Your task to perform on an android device: open app "Viber Messenger" (install if not already installed) and go to login screen Image 0: 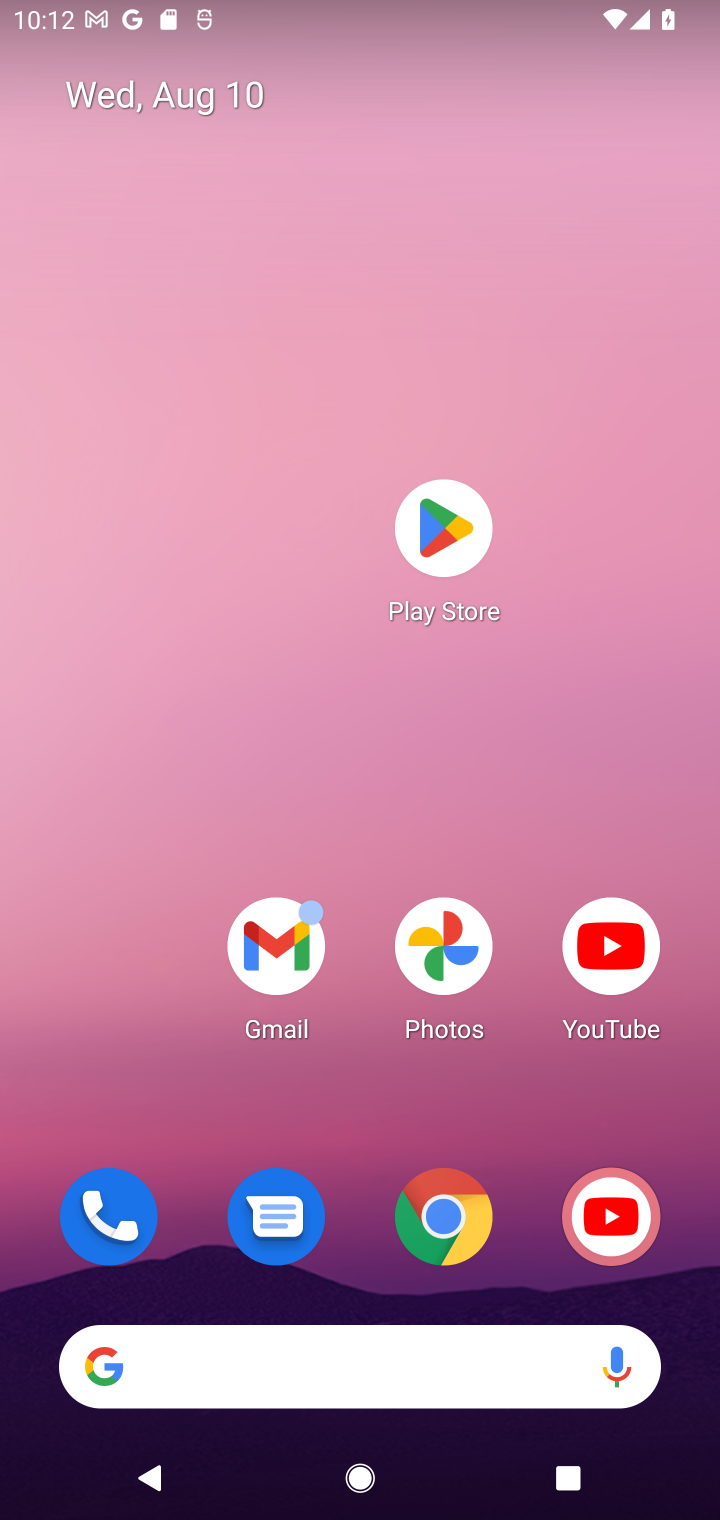
Step 0: click (436, 515)
Your task to perform on an android device: open app "Viber Messenger" (install if not already installed) and go to login screen Image 1: 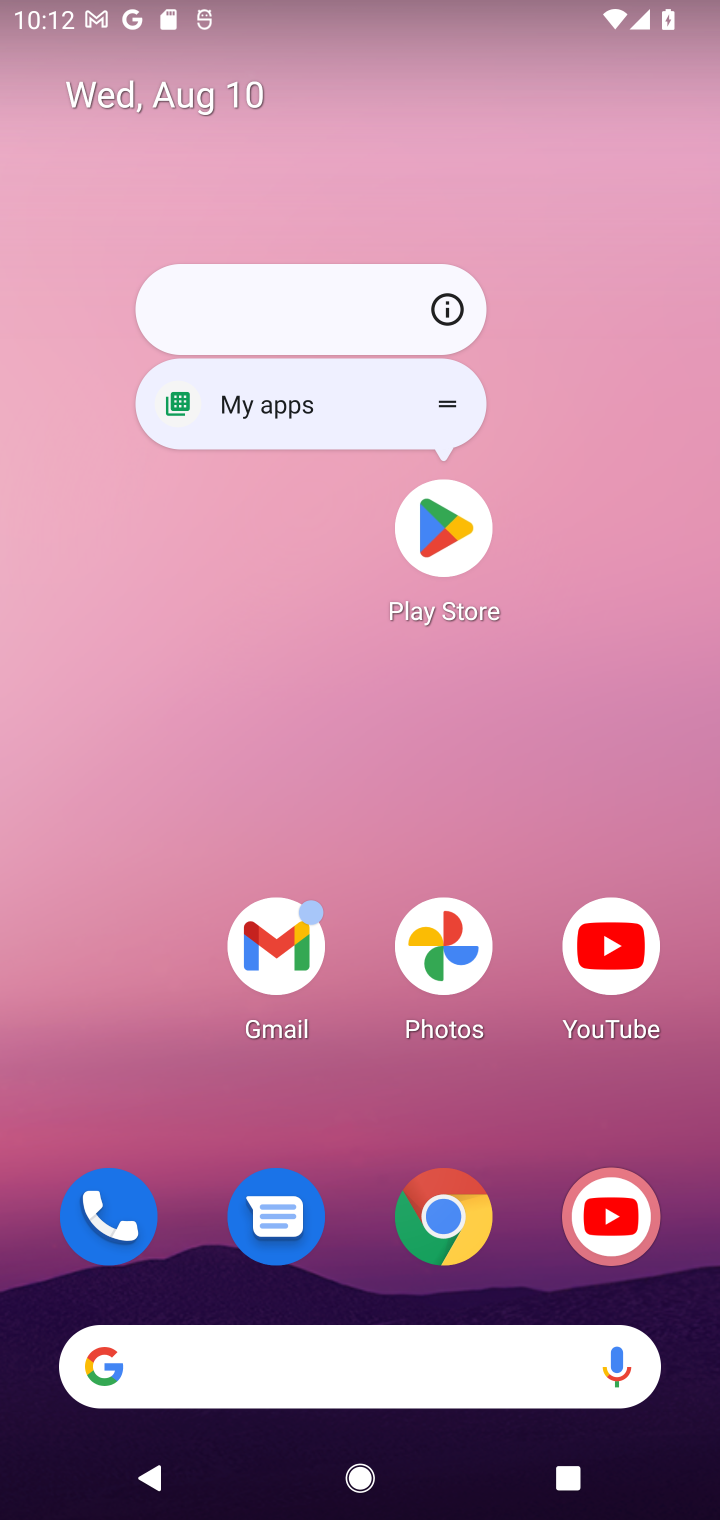
Step 1: click (436, 519)
Your task to perform on an android device: open app "Viber Messenger" (install if not already installed) and go to login screen Image 2: 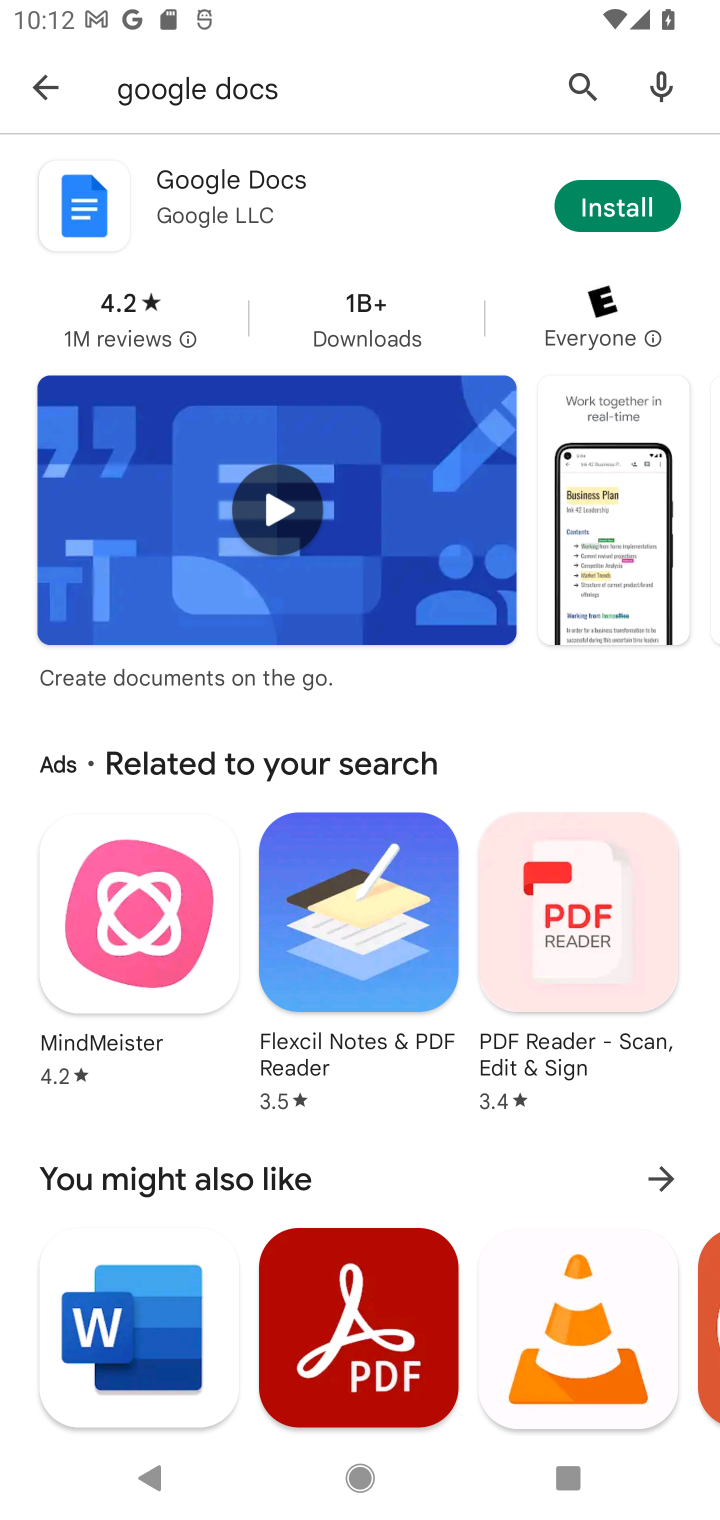
Step 2: click (576, 83)
Your task to perform on an android device: open app "Viber Messenger" (install if not already installed) and go to login screen Image 3: 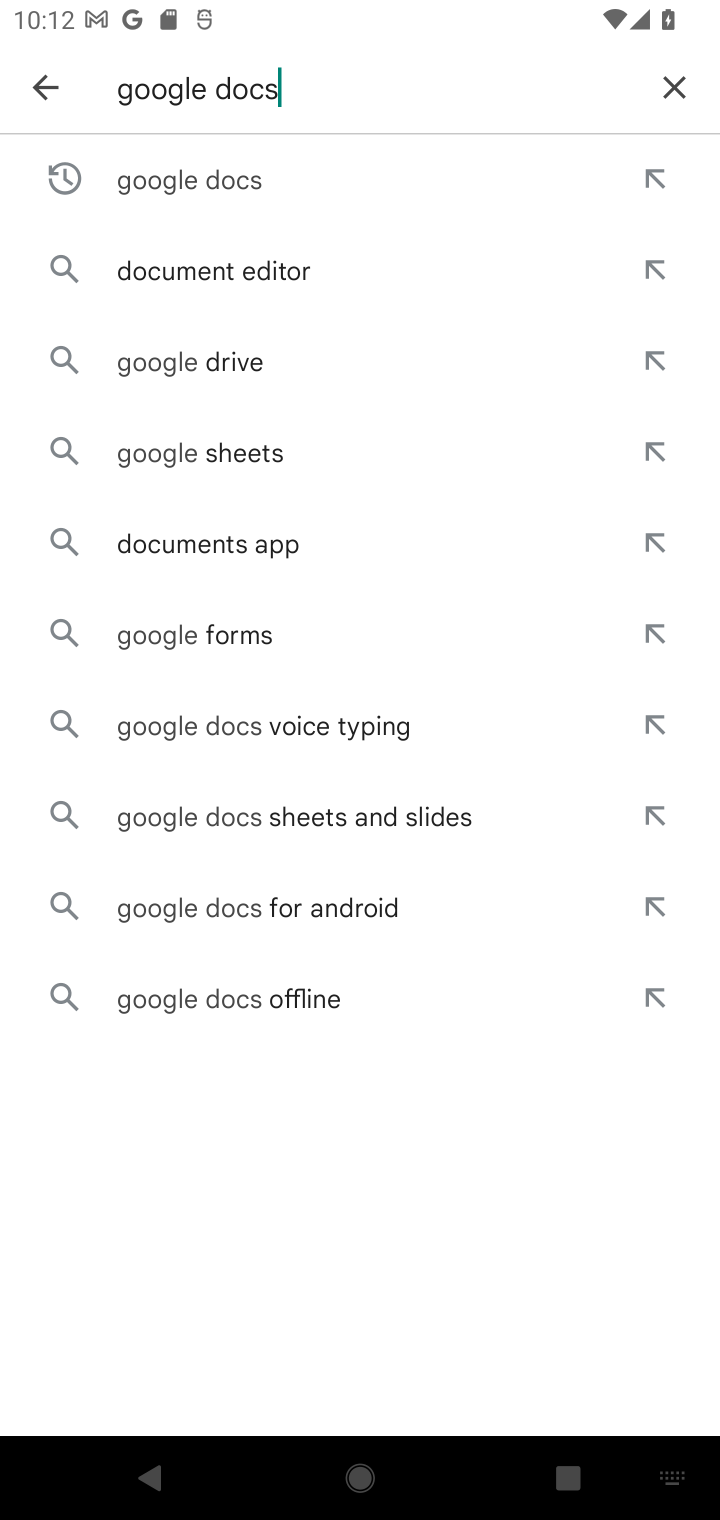
Step 3: click (689, 79)
Your task to perform on an android device: open app "Viber Messenger" (install if not already installed) and go to login screen Image 4: 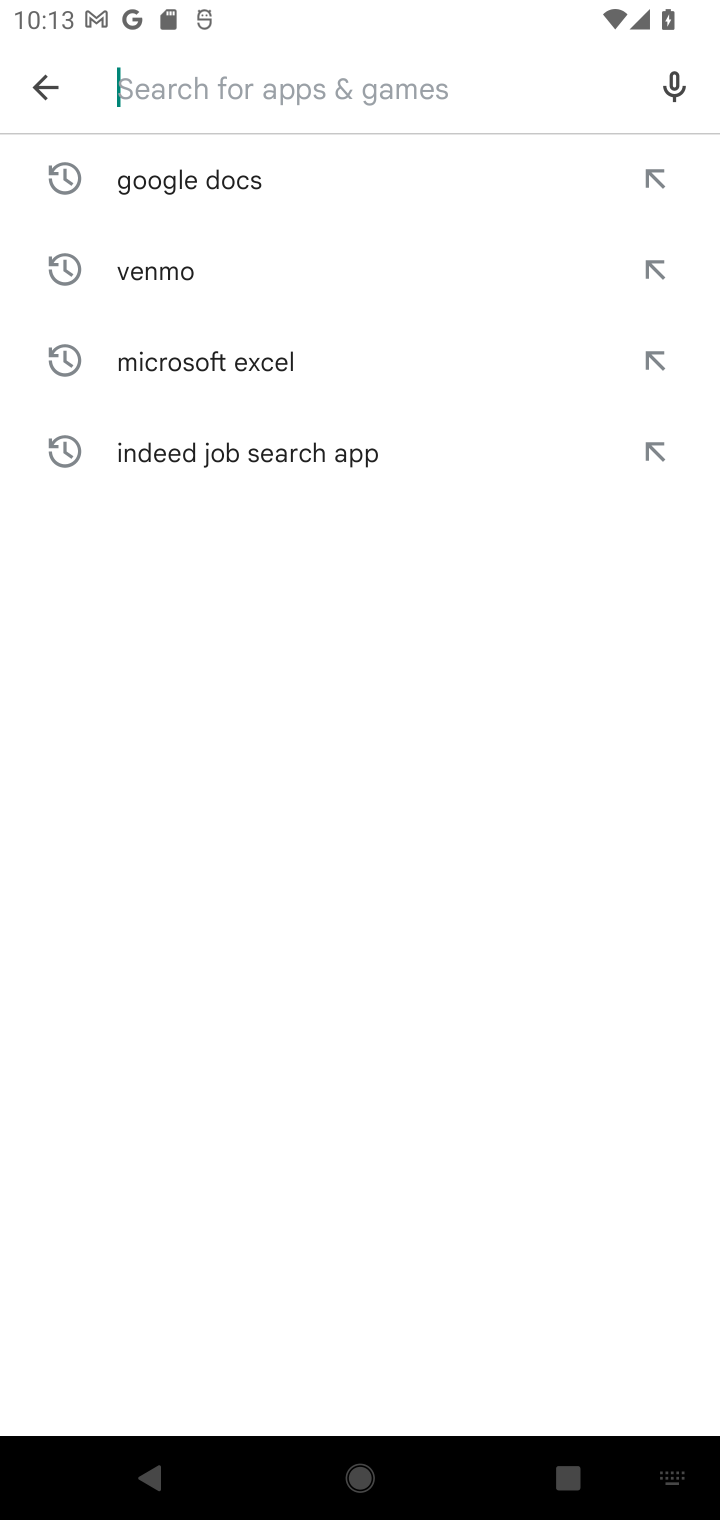
Step 4: type "Viber Messenger"
Your task to perform on an android device: open app "Viber Messenger" (install if not already installed) and go to login screen Image 5: 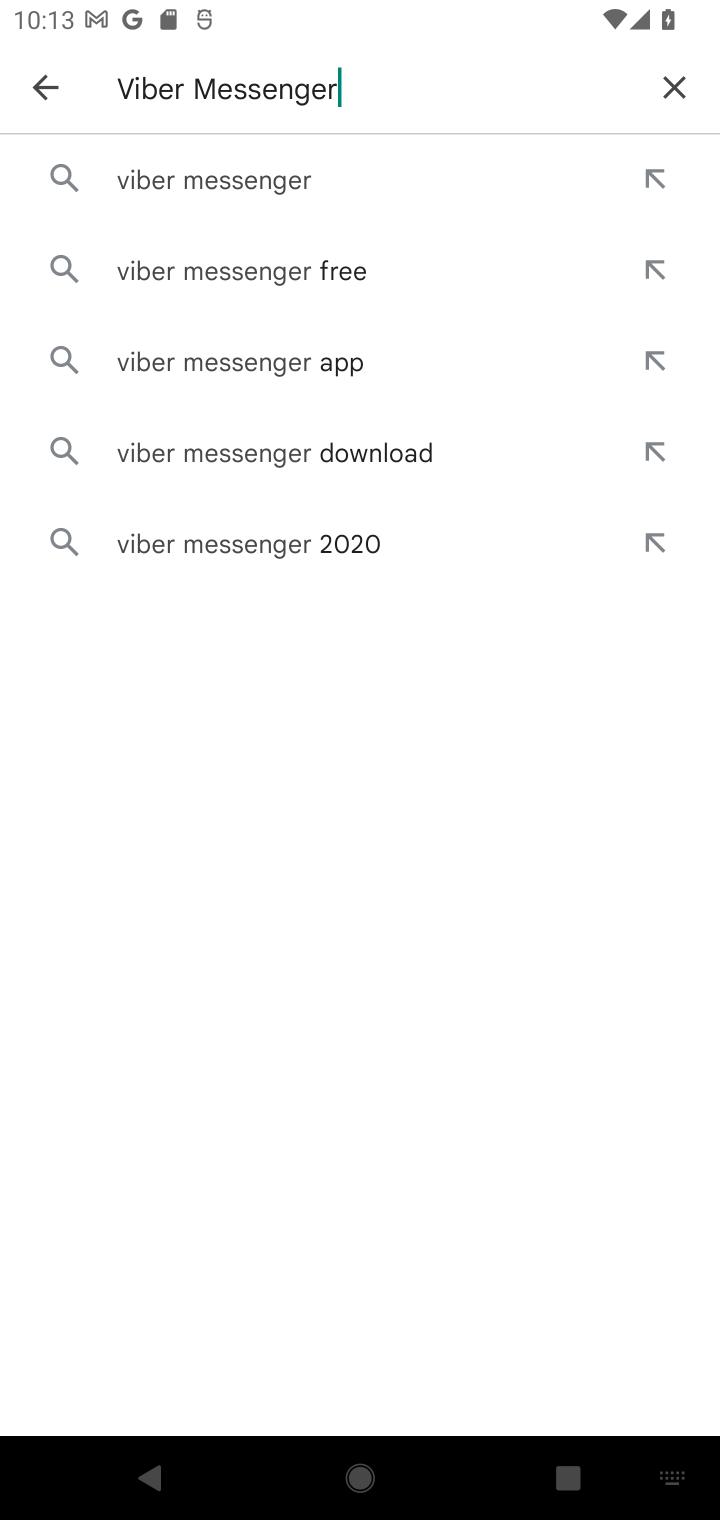
Step 5: click (219, 173)
Your task to perform on an android device: open app "Viber Messenger" (install if not already installed) and go to login screen Image 6: 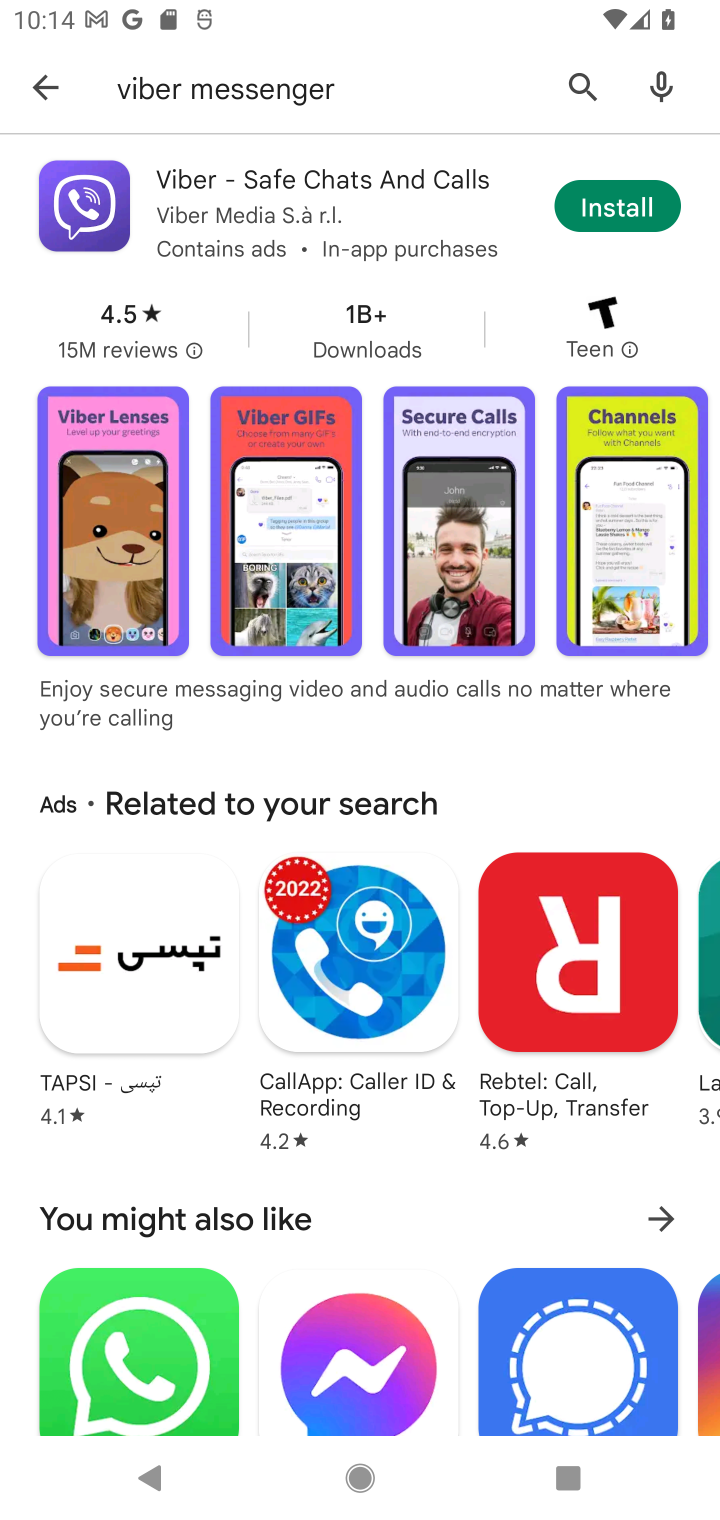
Step 6: click (632, 201)
Your task to perform on an android device: open app "Viber Messenger" (install if not already installed) and go to login screen Image 7: 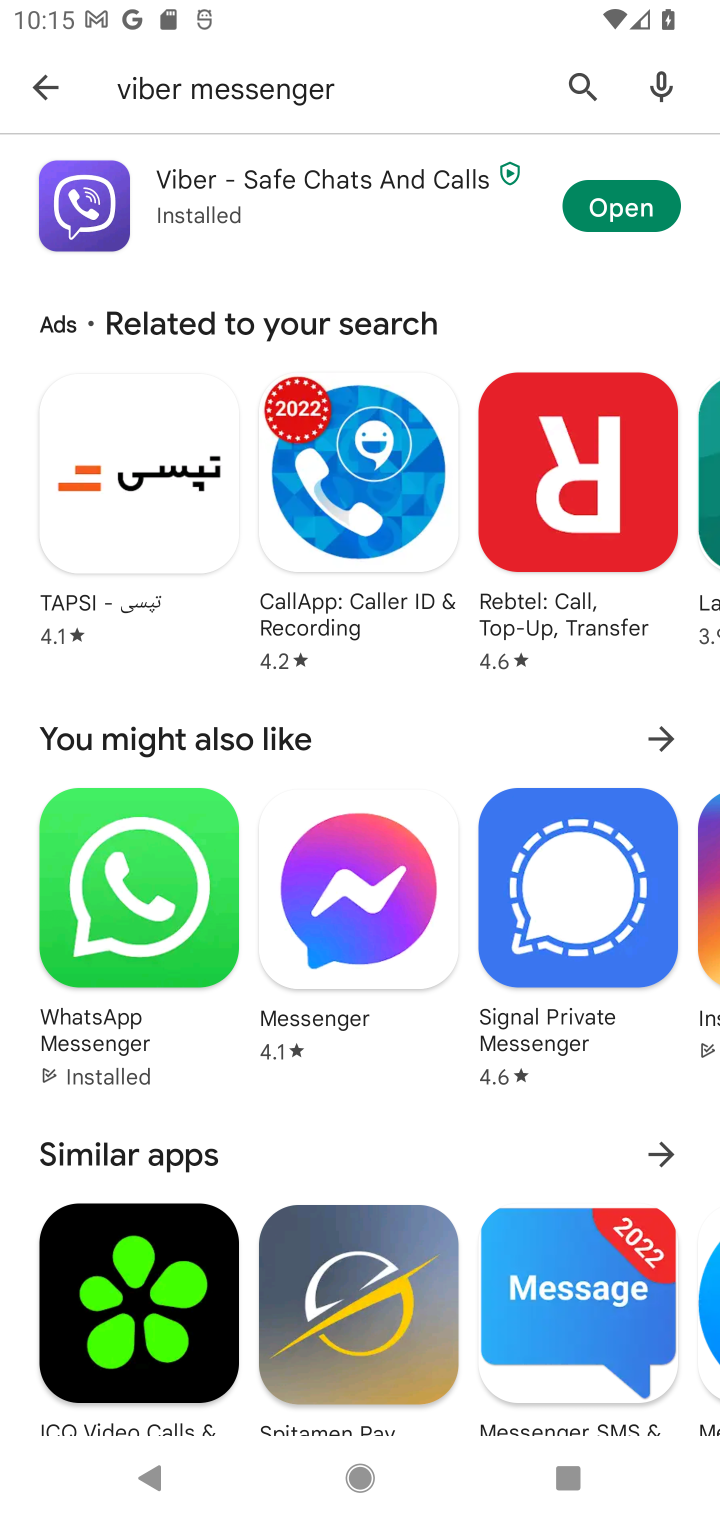
Step 7: click (616, 212)
Your task to perform on an android device: open app "Viber Messenger" (install if not already installed) and go to login screen Image 8: 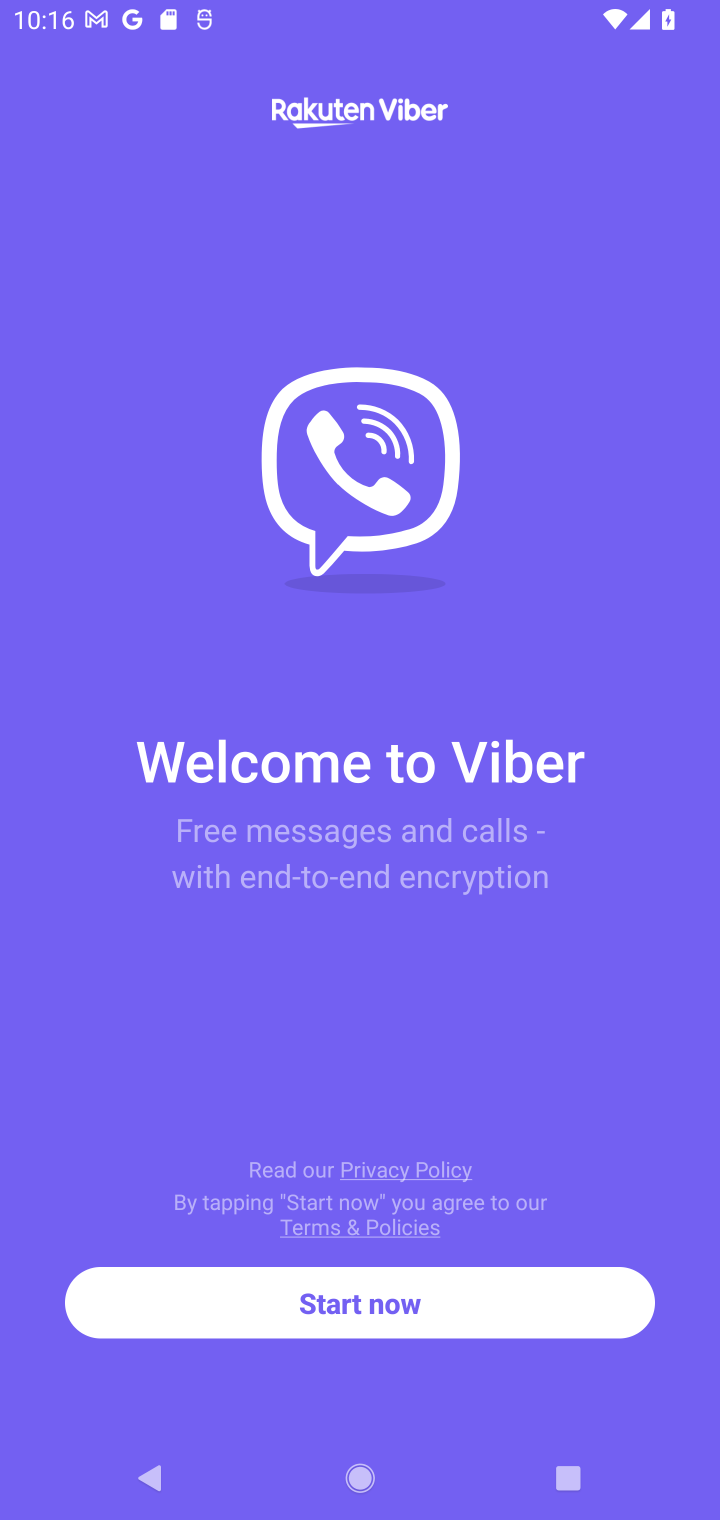
Step 8: task complete